Your task to perform on an android device: Open settings Image 0: 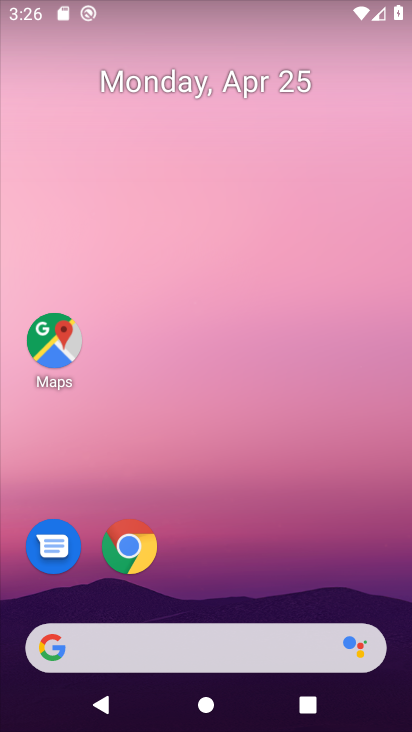
Step 0: drag from (232, 541) to (329, 0)
Your task to perform on an android device: Open settings Image 1: 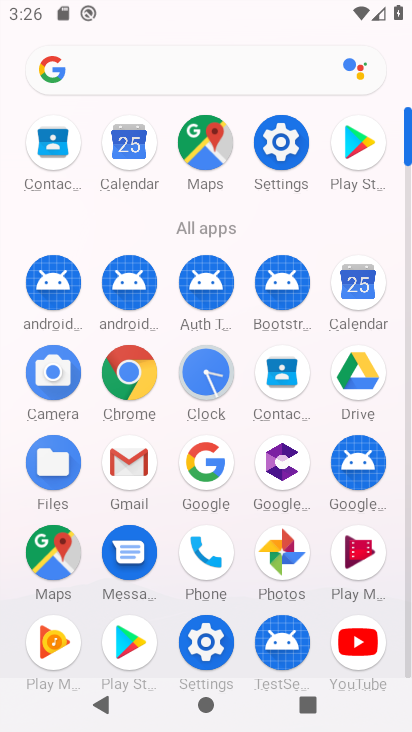
Step 1: click (267, 144)
Your task to perform on an android device: Open settings Image 2: 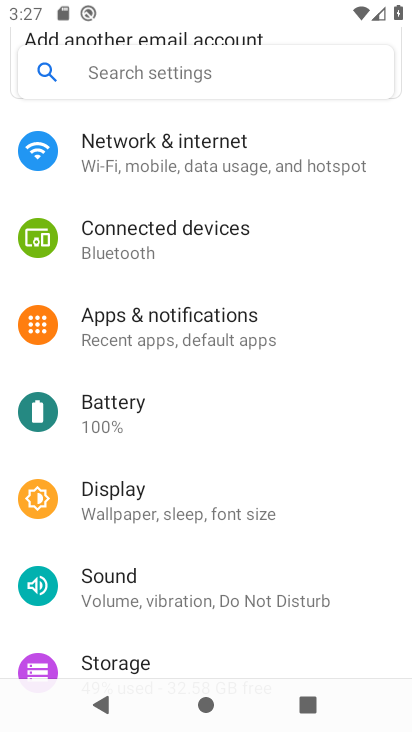
Step 2: task complete